Your task to perform on an android device: Open maps Image 0: 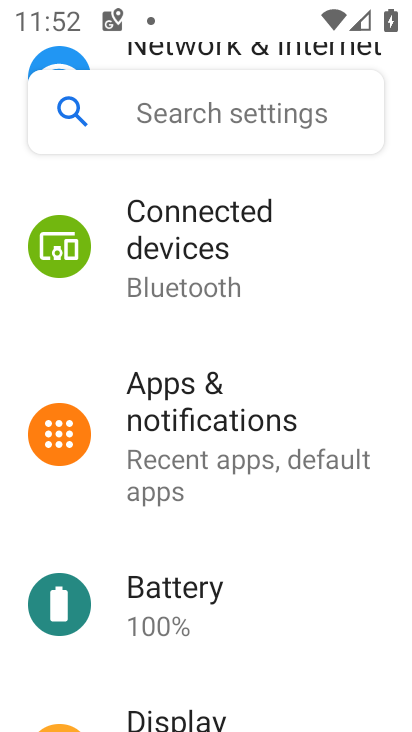
Step 0: press home button
Your task to perform on an android device: Open maps Image 1: 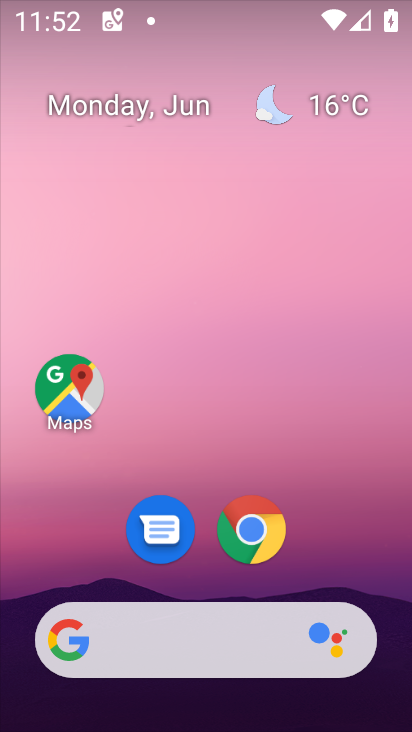
Step 1: click (76, 411)
Your task to perform on an android device: Open maps Image 2: 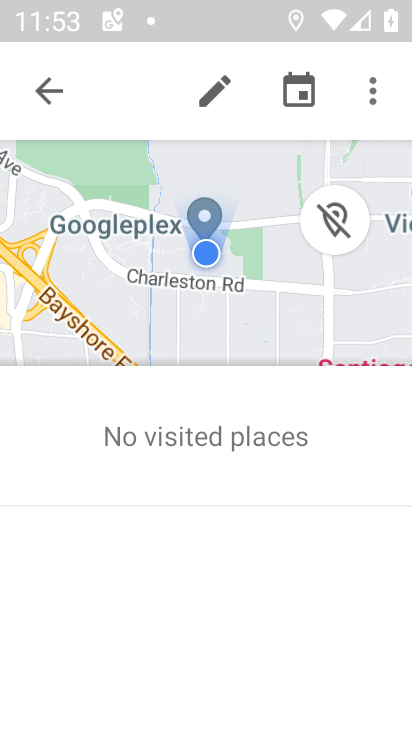
Step 2: task complete